Your task to perform on an android device: Open Google Chrome Image 0: 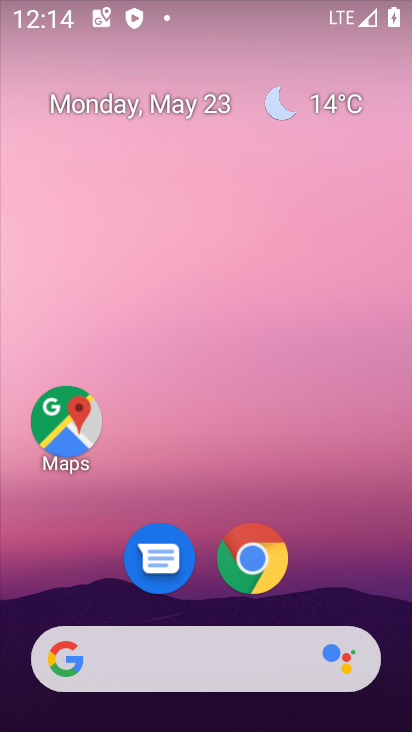
Step 0: click (253, 563)
Your task to perform on an android device: Open Google Chrome Image 1: 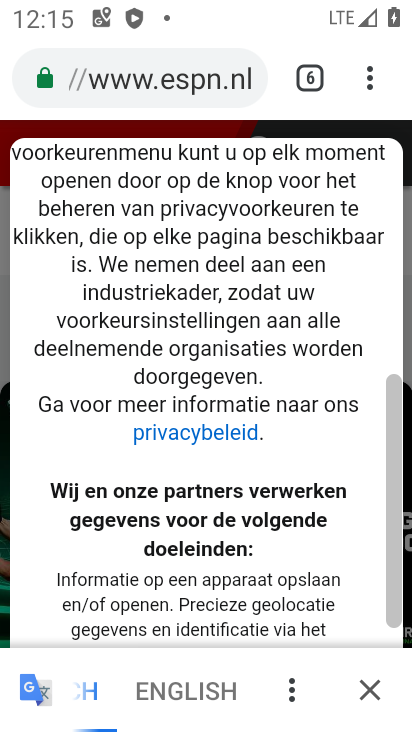
Step 1: task complete